Your task to perform on an android device: show emergency info Image 0: 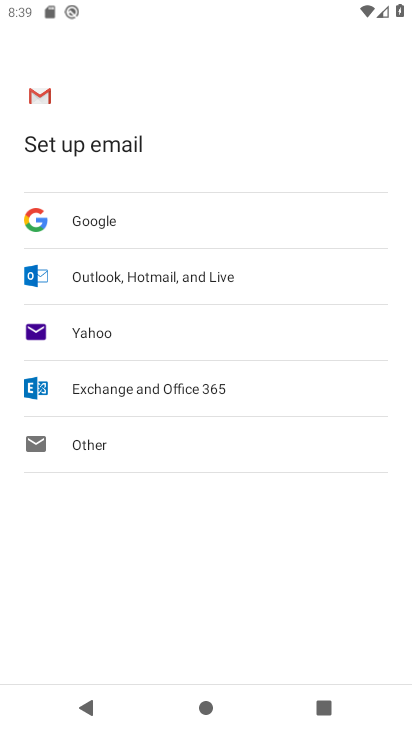
Step 0: press home button
Your task to perform on an android device: show emergency info Image 1: 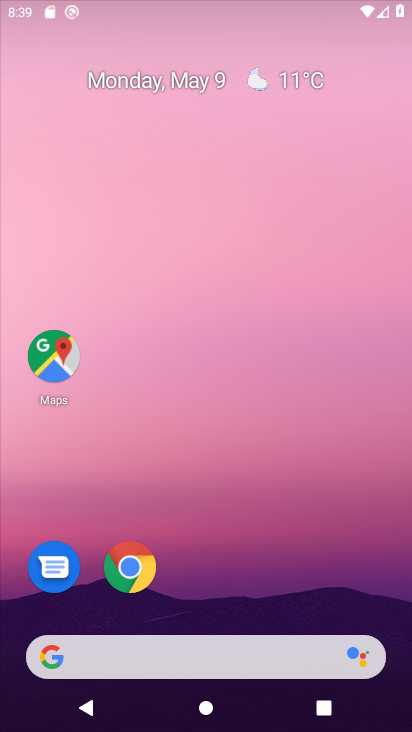
Step 1: drag from (199, 536) to (205, 58)
Your task to perform on an android device: show emergency info Image 2: 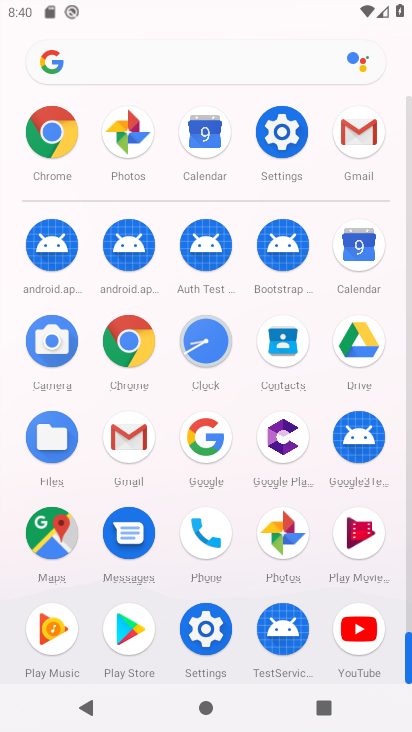
Step 2: click (275, 139)
Your task to perform on an android device: show emergency info Image 3: 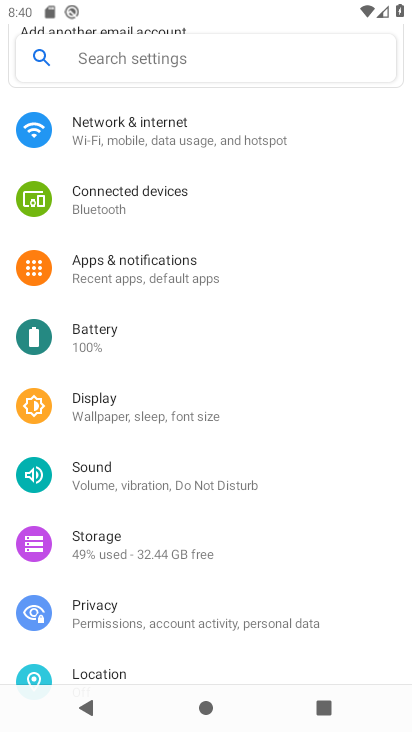
Step 3: drag from (193, 558) to (237, 76)
Your task to perform on an android device: show emergency info Image 4: 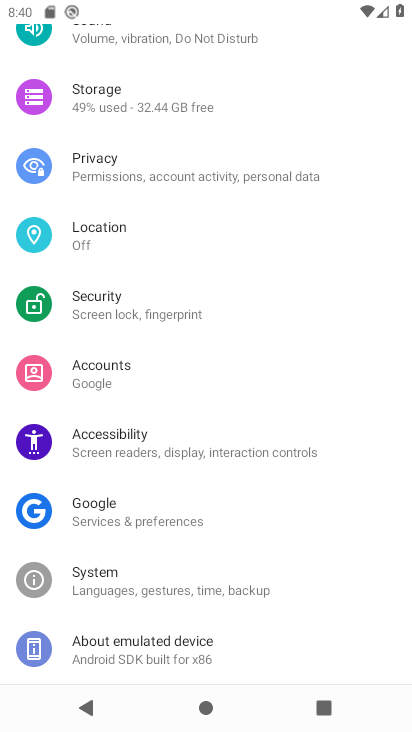
Step 4: click (168, 644)
Your task to perform on an android device: show emergency info Image 5: 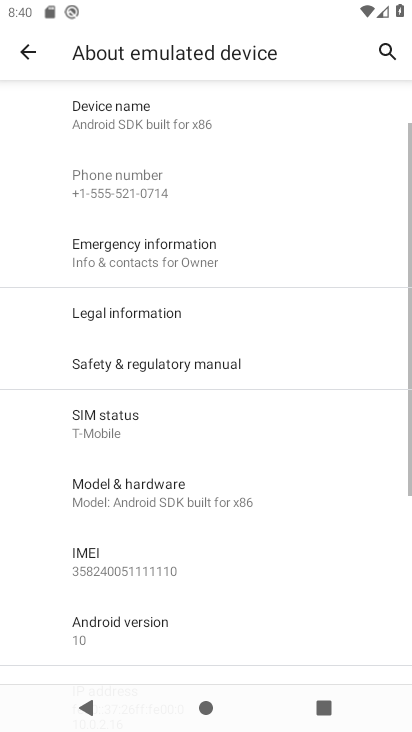
Step 5: click (187, 250)
Your task to perform on an android device: show emergency info Image 6: 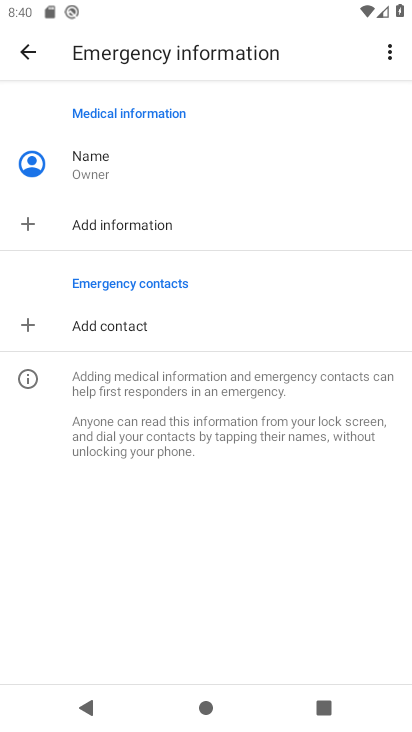
Step 6: task complete